Your task to perform on an android device: Open Yahoo.com Image 0: 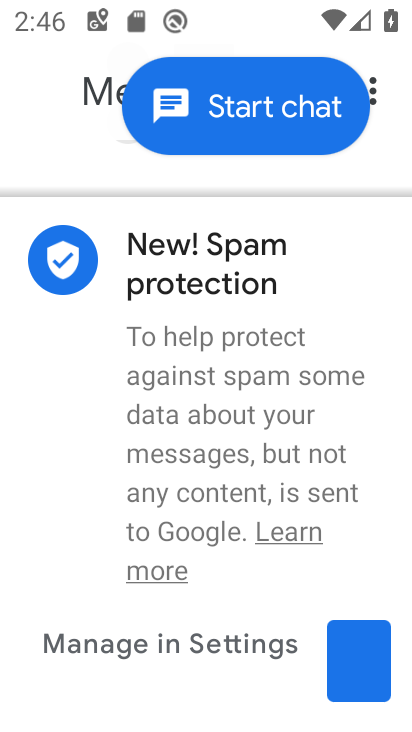
Step 0: press home button
Your task to perform on an android device: Open Yahoo.com Image 1: 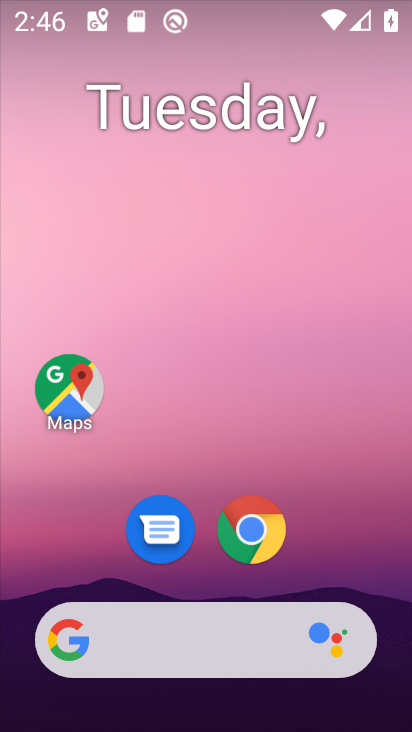
Step 1: drag from (272, 574) to (272, 167)
Your task to perform on an android device: Open Yahoo.com Image 2: 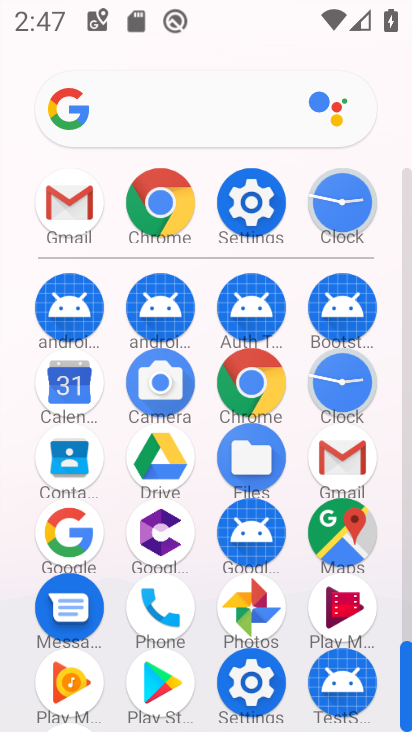
Step 2: click (169, 194)
Your task to perform on an android device: Open Yahoo.com Image 3: 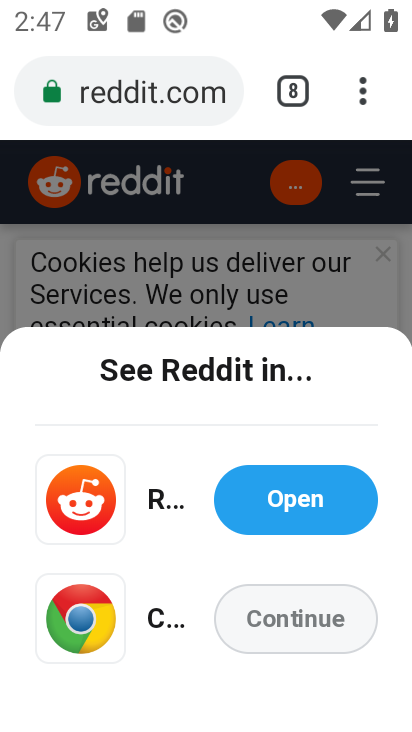
Step 3: click (364, 93)
Your task to perform on an android device: Open Yahoo.com Image 4: 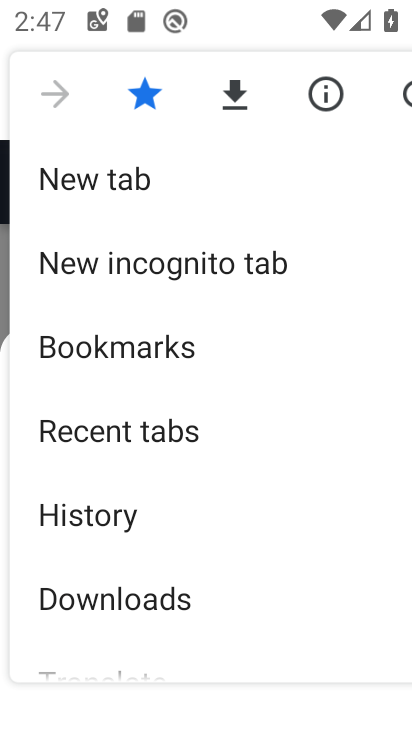
Step 4: click (107, 188)
Your task to perform on an android device: Open Yahoo.com Image 5: 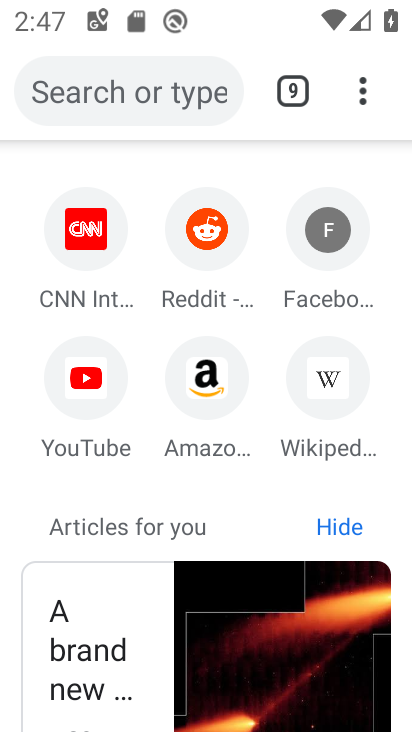
Step 5: click (148, 78)
Your task to perform on an android device: Open Yahoo.com Image 6: 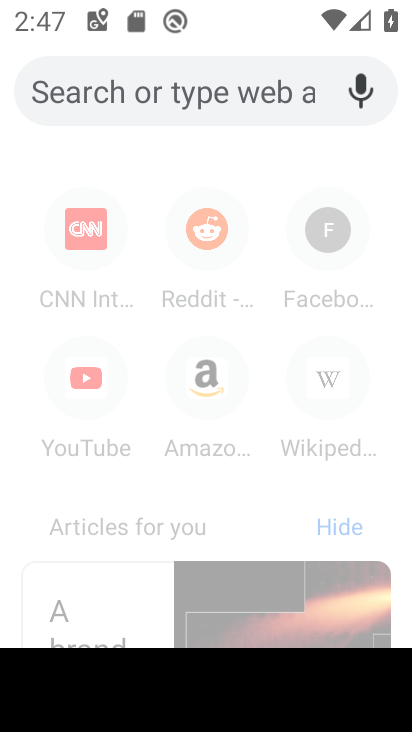
Step 6: type "Yahoo.com"
Your task to perform on an android device: Open Yahoo.com Image 7: 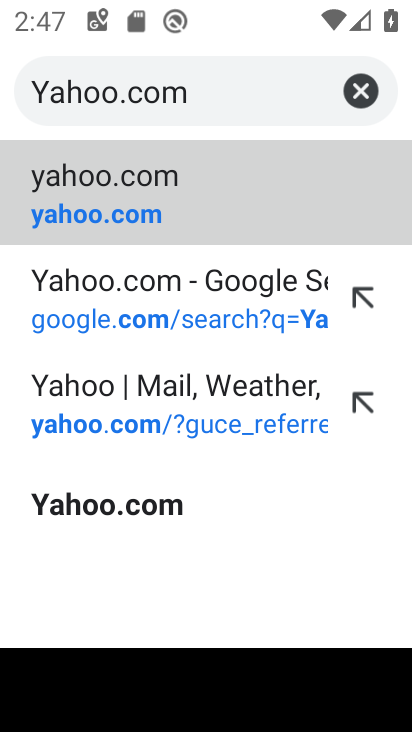
Step 7: click (189, 193)
Your task to perform on an android device: Open Yahoo.com Image 8: 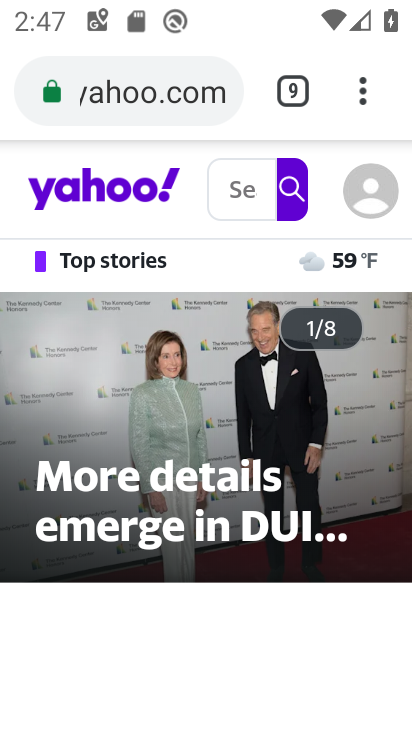
Step 8: task complete